Your task to perform on an android device: Search for the best 100% cotton t-shirts Image 0: 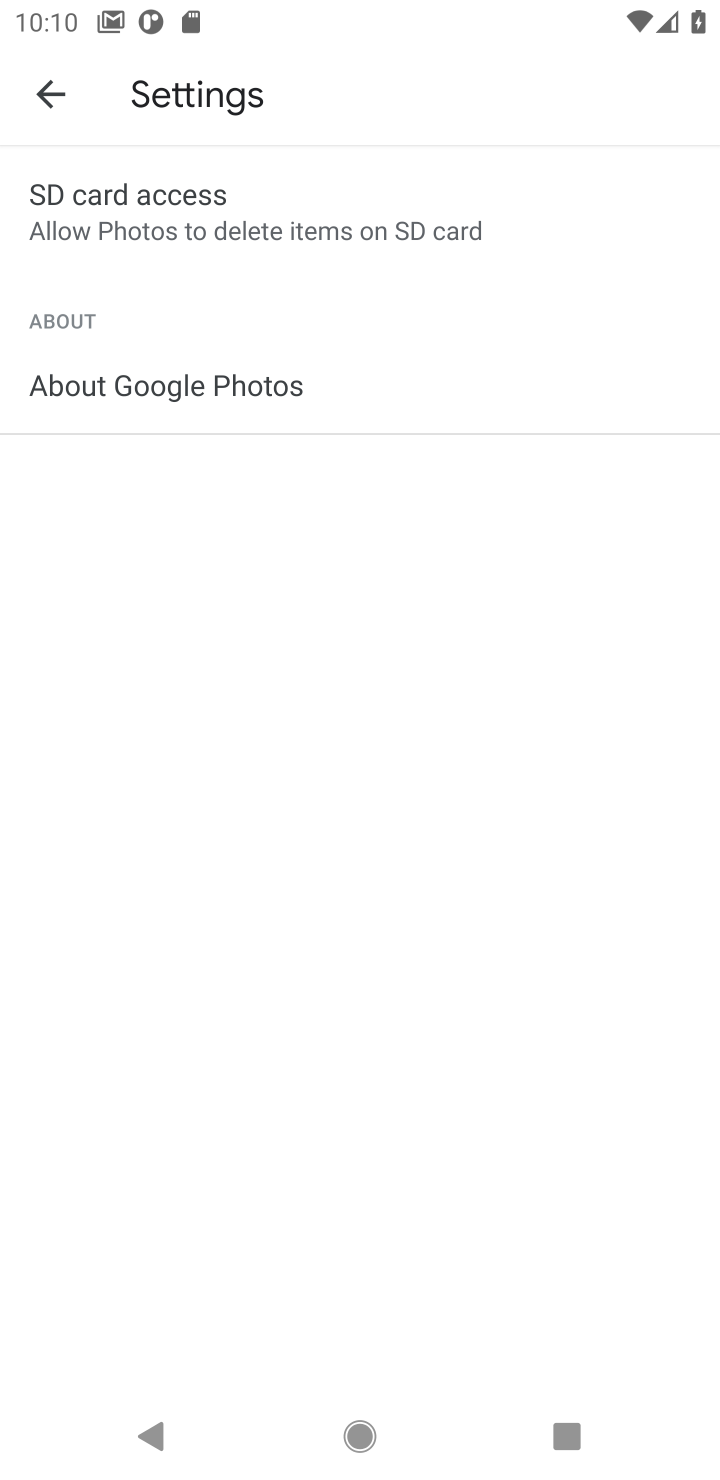
Step 0: click (52, 95)
Your task to perform on an android device: Search for the best 100% cotton t-shirts Image 1: 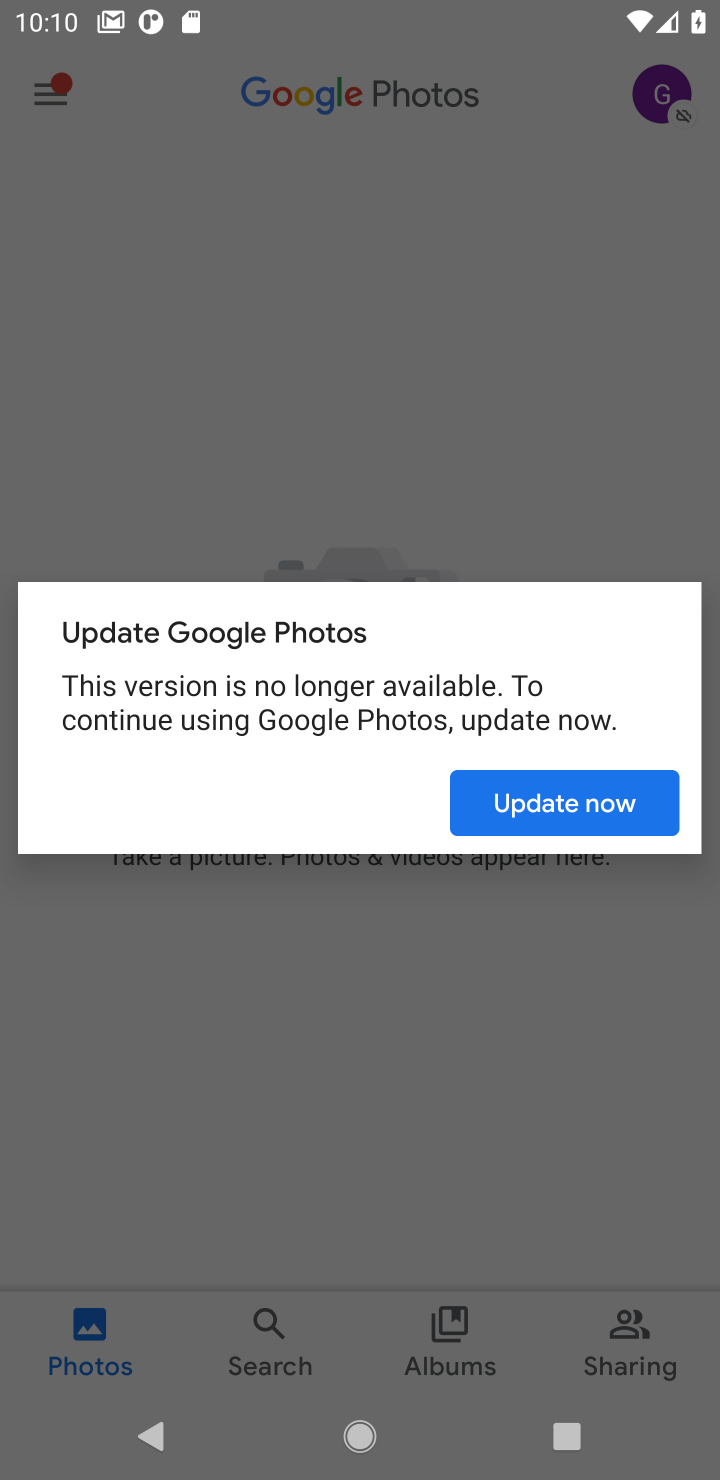
Step 1: press home button
Your task to perform on an android device: Search for the best 100% cotton t-shirts Image 2: 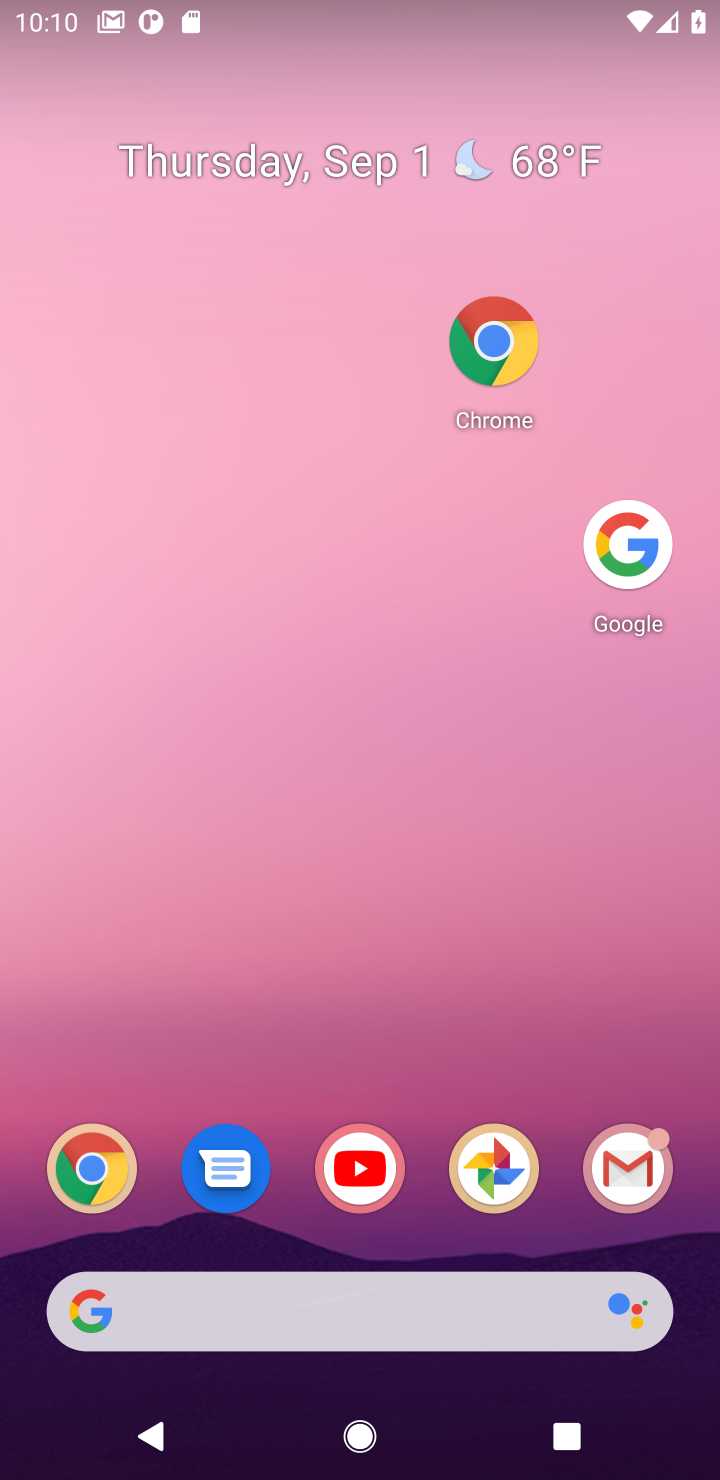
Step 2: click (343, 283)
Your task to perform on an android device: Search for the best 100% cotton t-shirts Image 3: 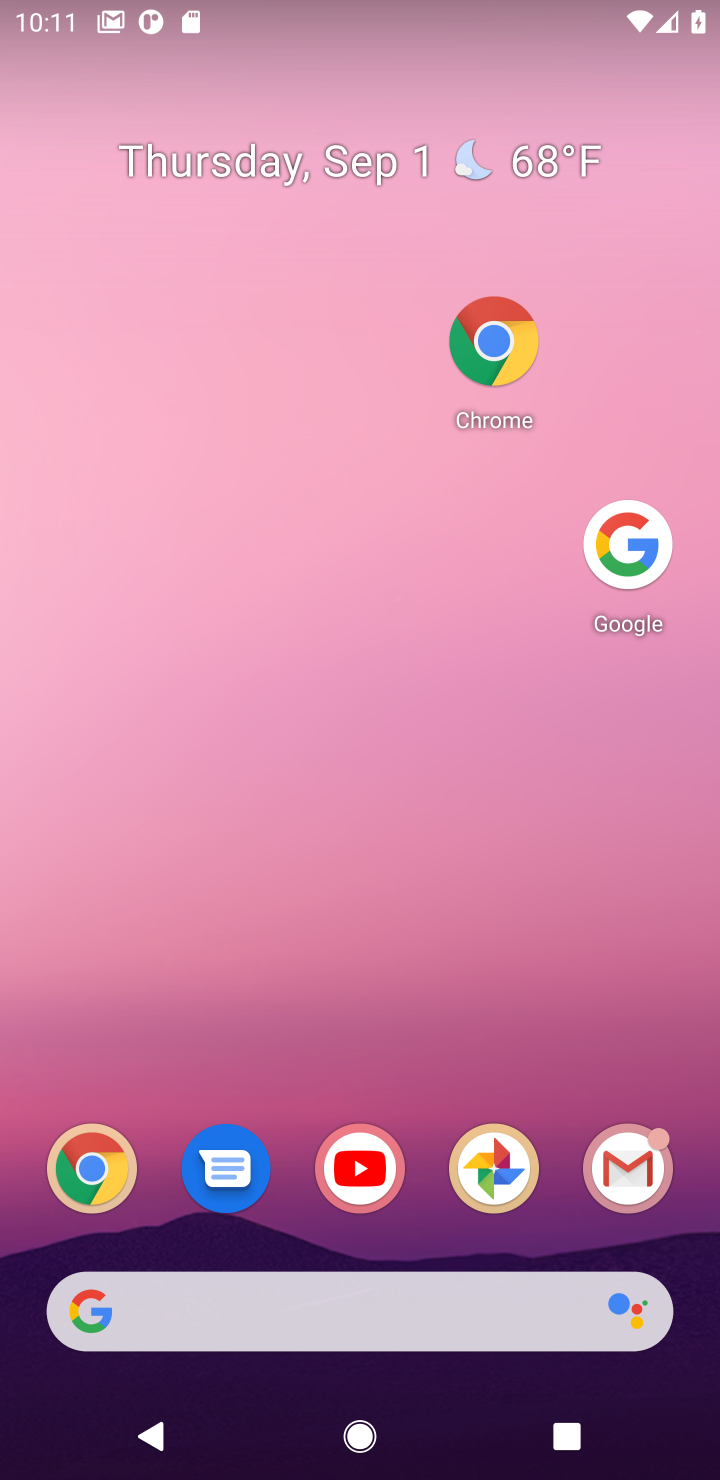
Step 3: click (640, 539)
Your task to perform on an android device: Search for the best 100% cotton t-shirts Image 4: 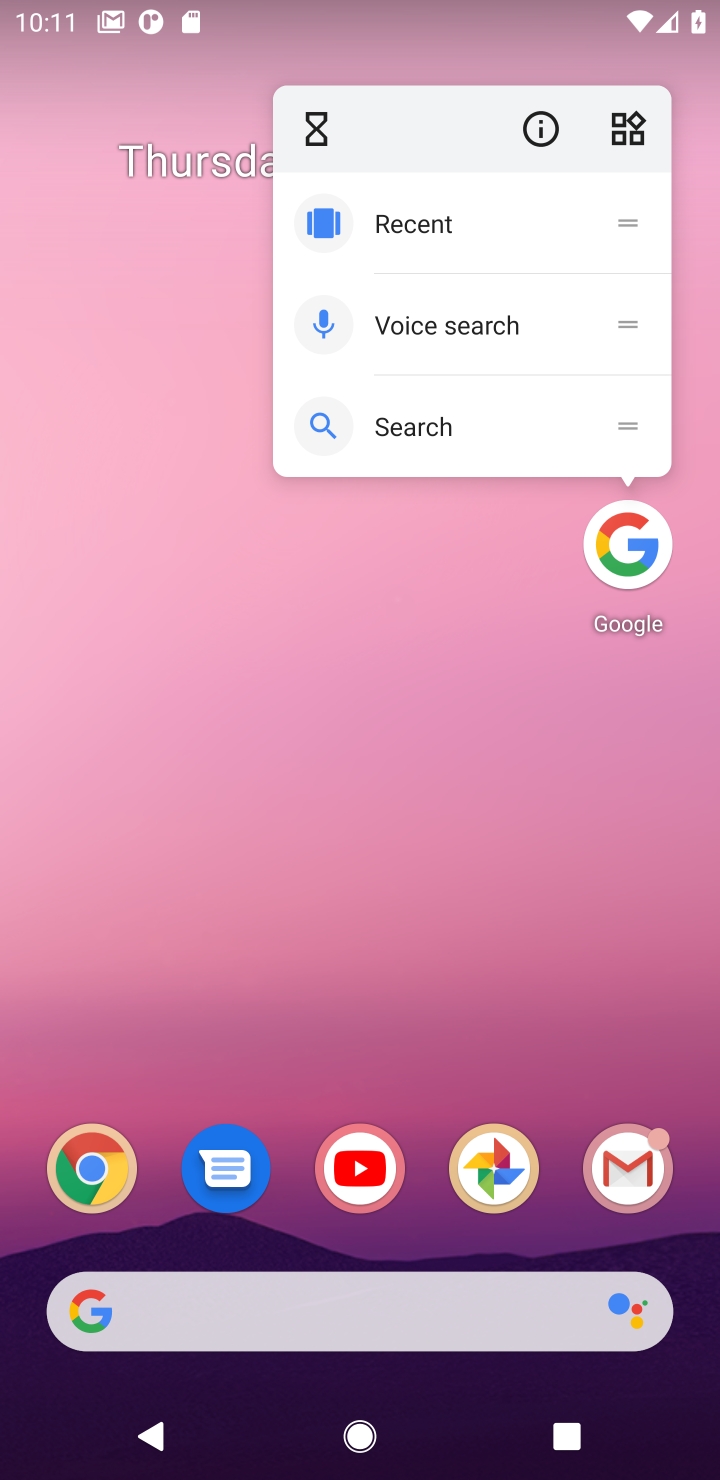
Step 4: click (640, 539)
Your task to perform on an android device: Search for the best 100% cotton t-shirts Image 5: 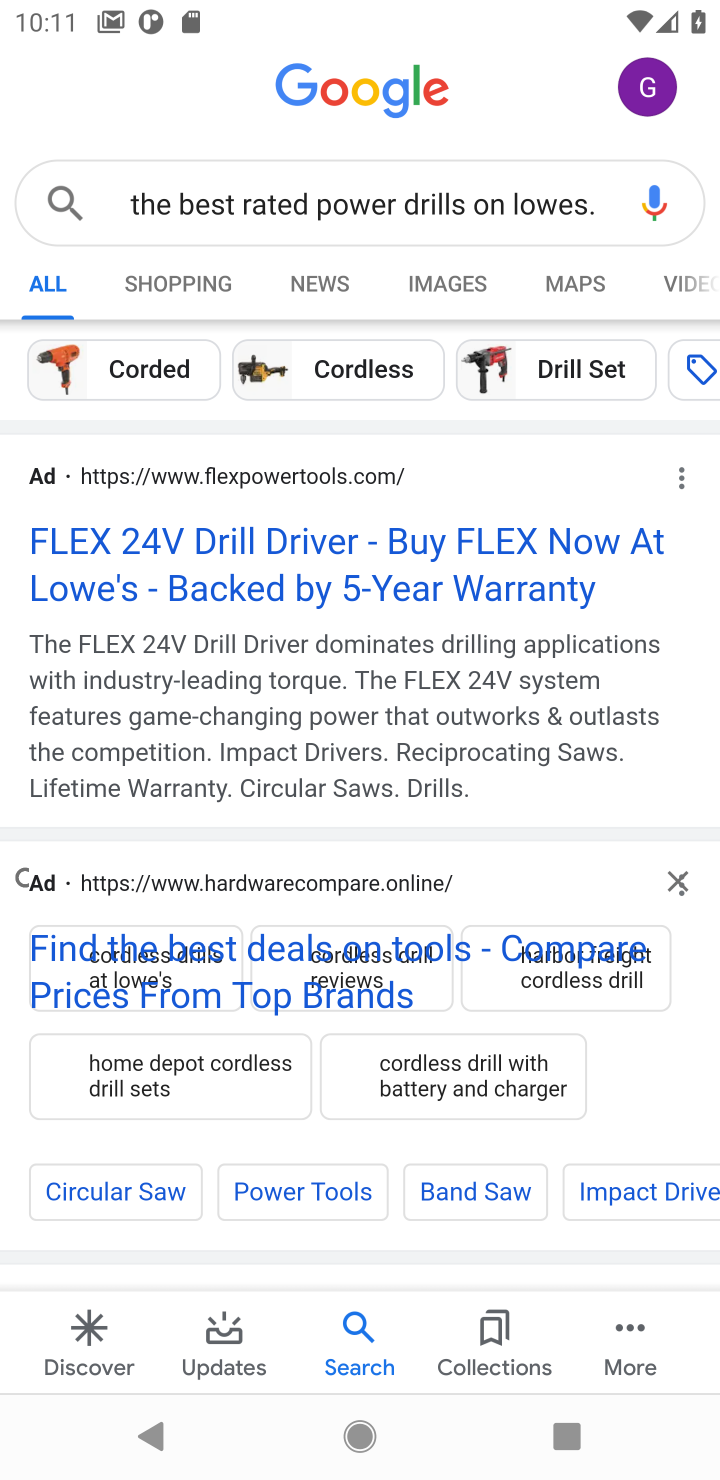
Step 5: click (505, 190)
Your task to perform on an android device: Search for the best 100% cotton t-shirts Image 6: 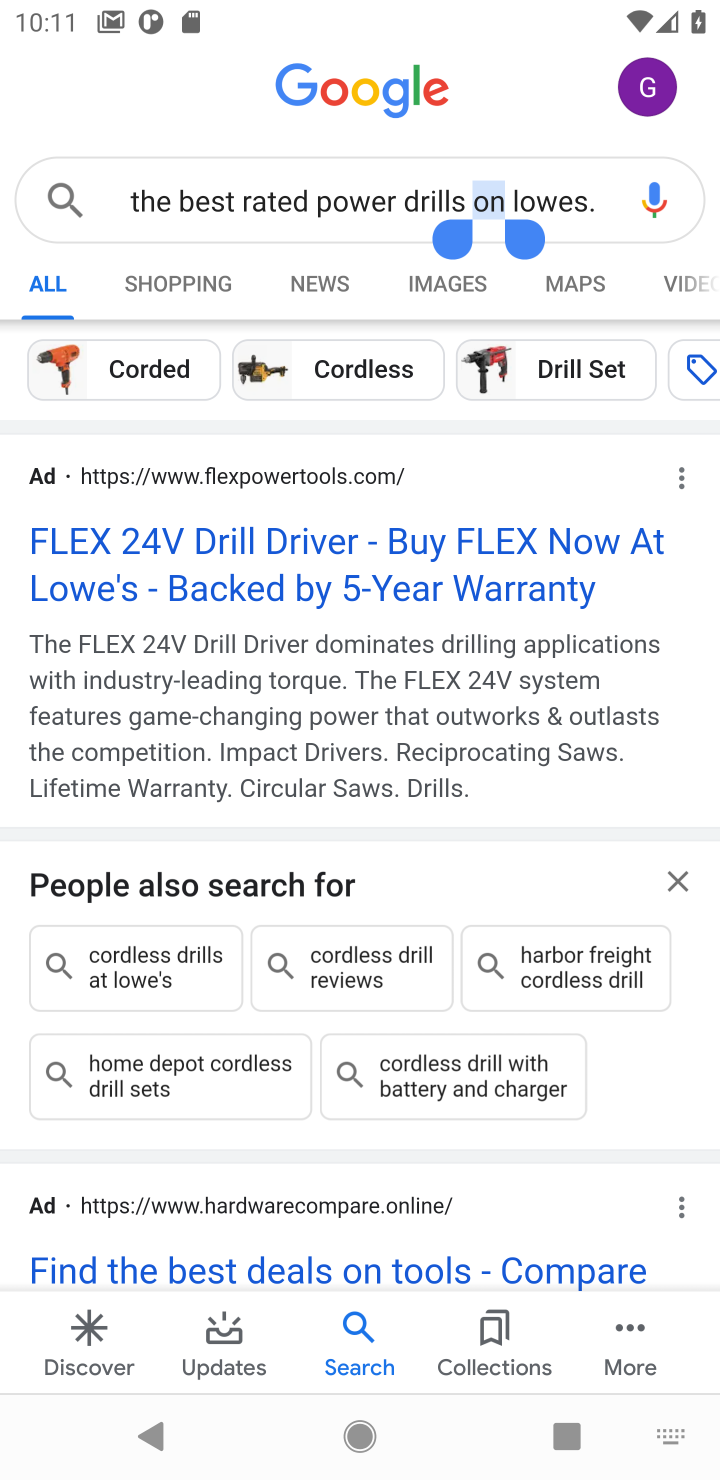
Step 6: click (578, 198)
Your task to perform on an android device: Search for the best 100% cotton t-shirts Image 7: 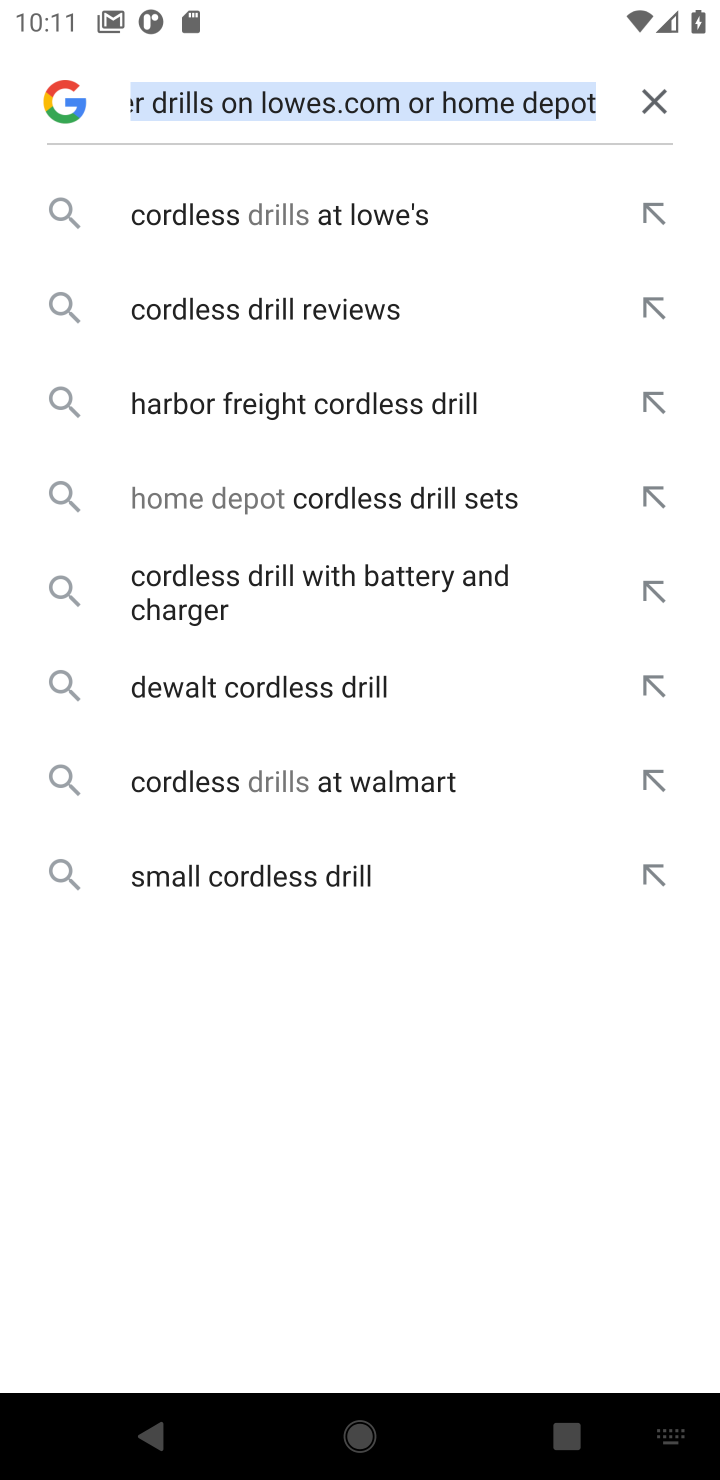
Step 7: click (651, 112)
Your task to perform on an android device: Search for the best 100% cotton t-shirts Image 8: 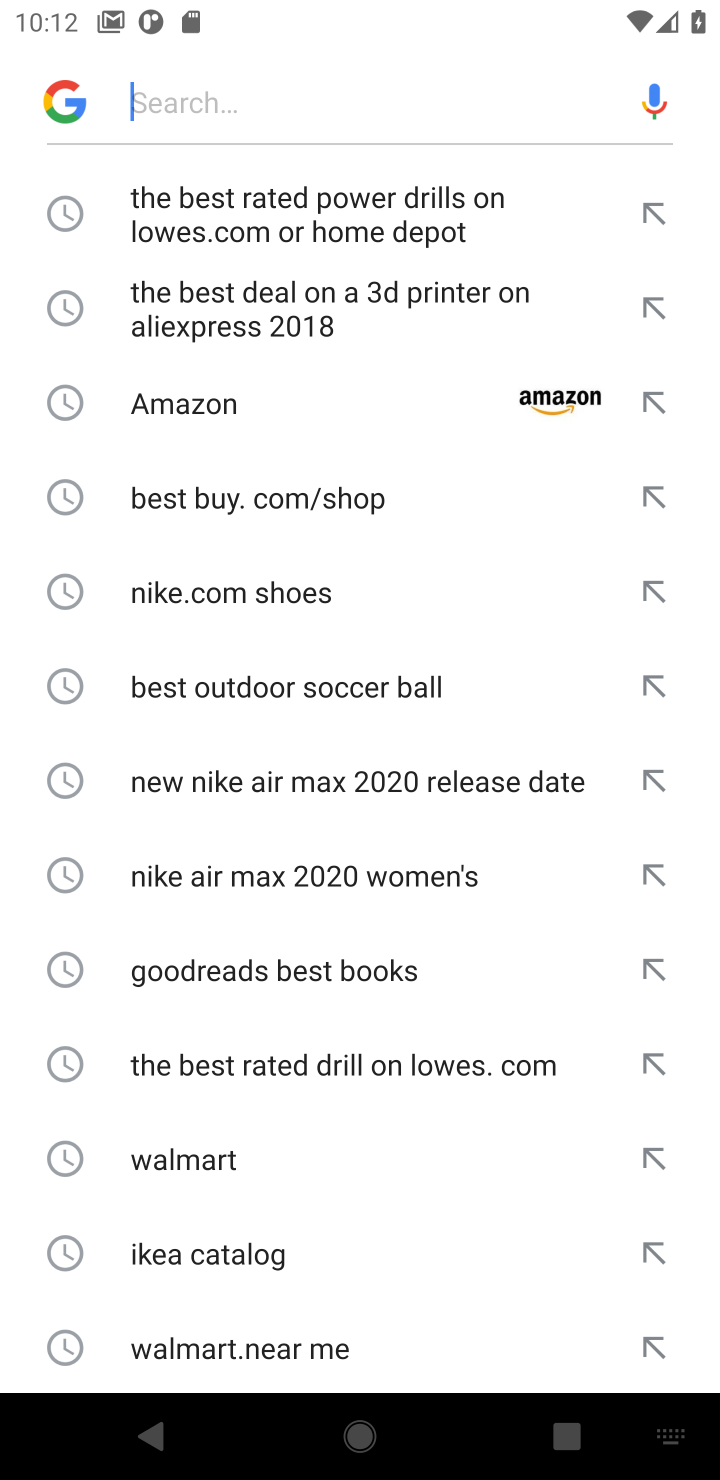
Step 8: click (359, 77)
Your task to perform on an android device: Search for the best 100% cotton t-shirts Image 9: 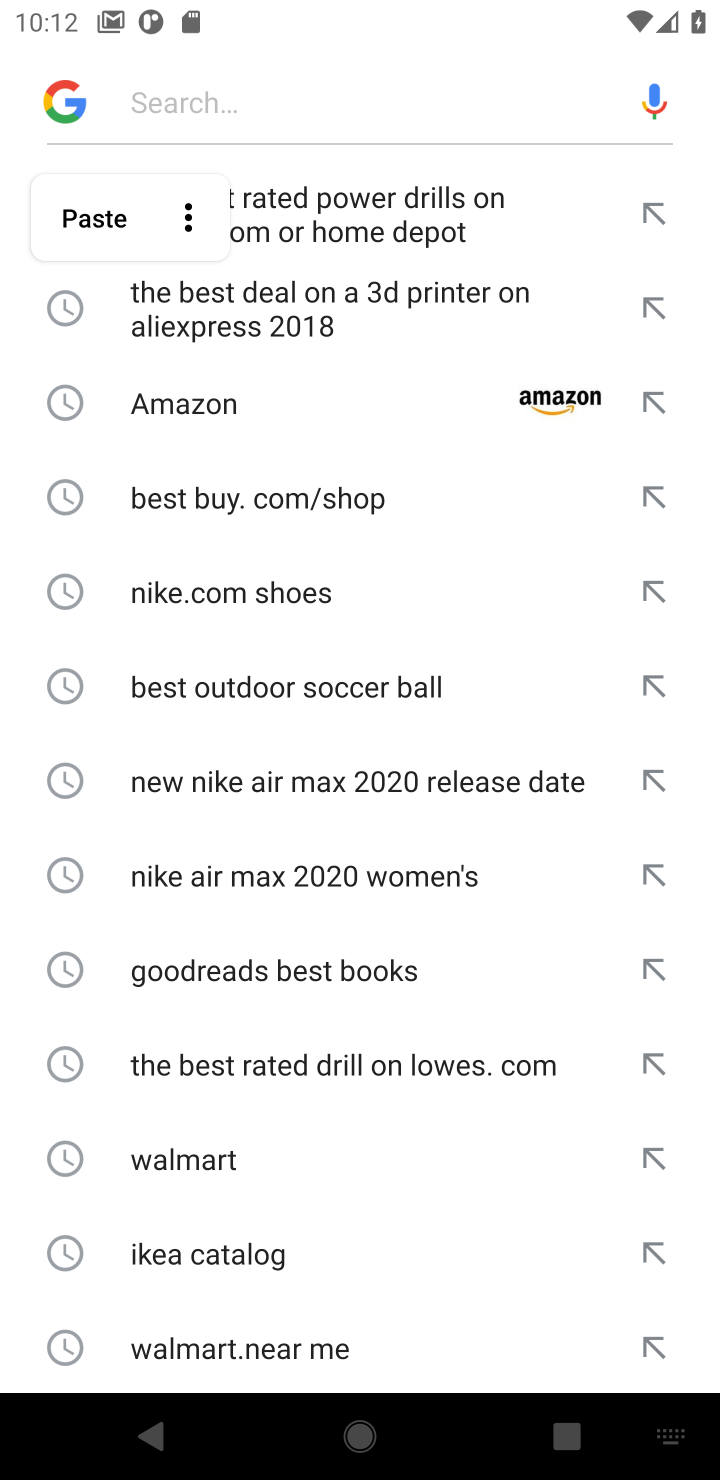
Step 9: type " the best 100% cotton t-shirts "
Your task to perform on an android device: Search for the best 100% cotton t-shirts Image 10: 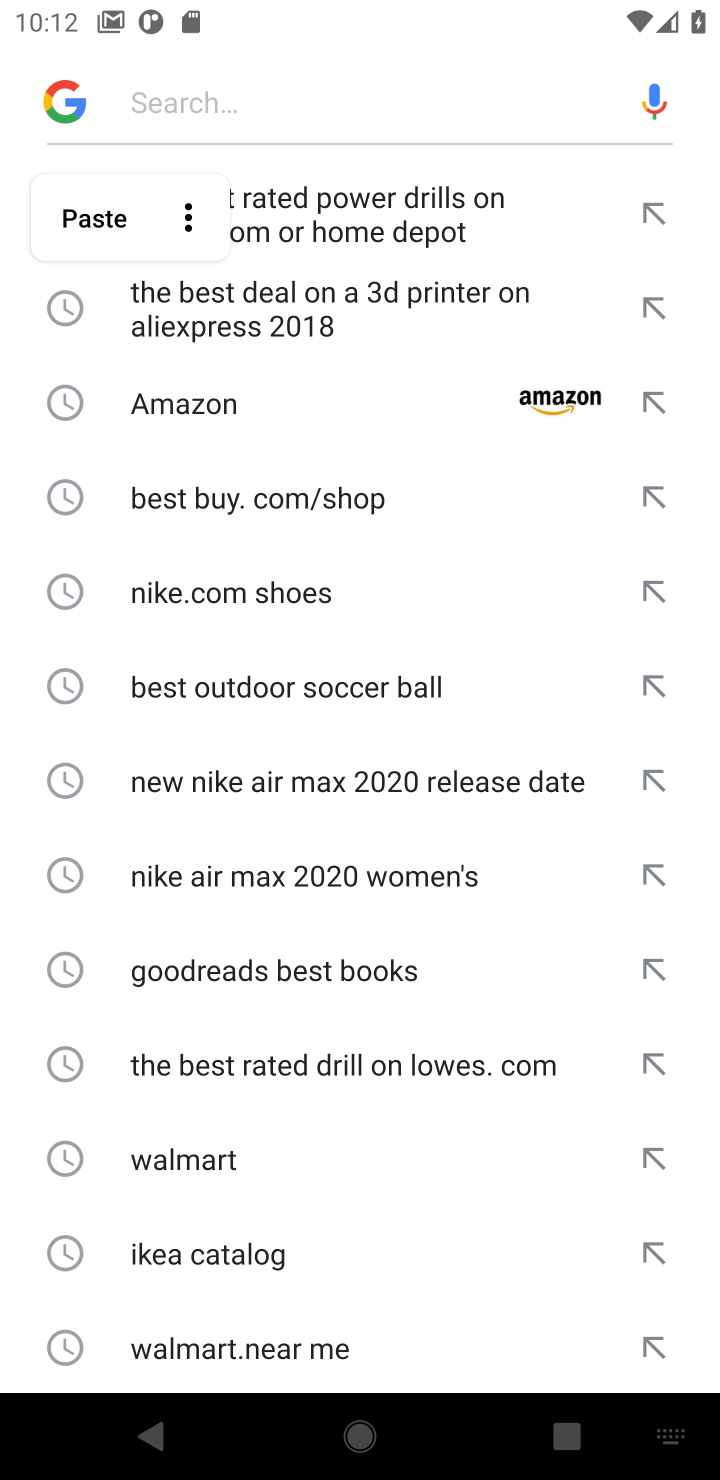
Step 10: click (107, 201)
Your task to perform on an android device: Search for the best 100% cotton t-shirts Image 11: 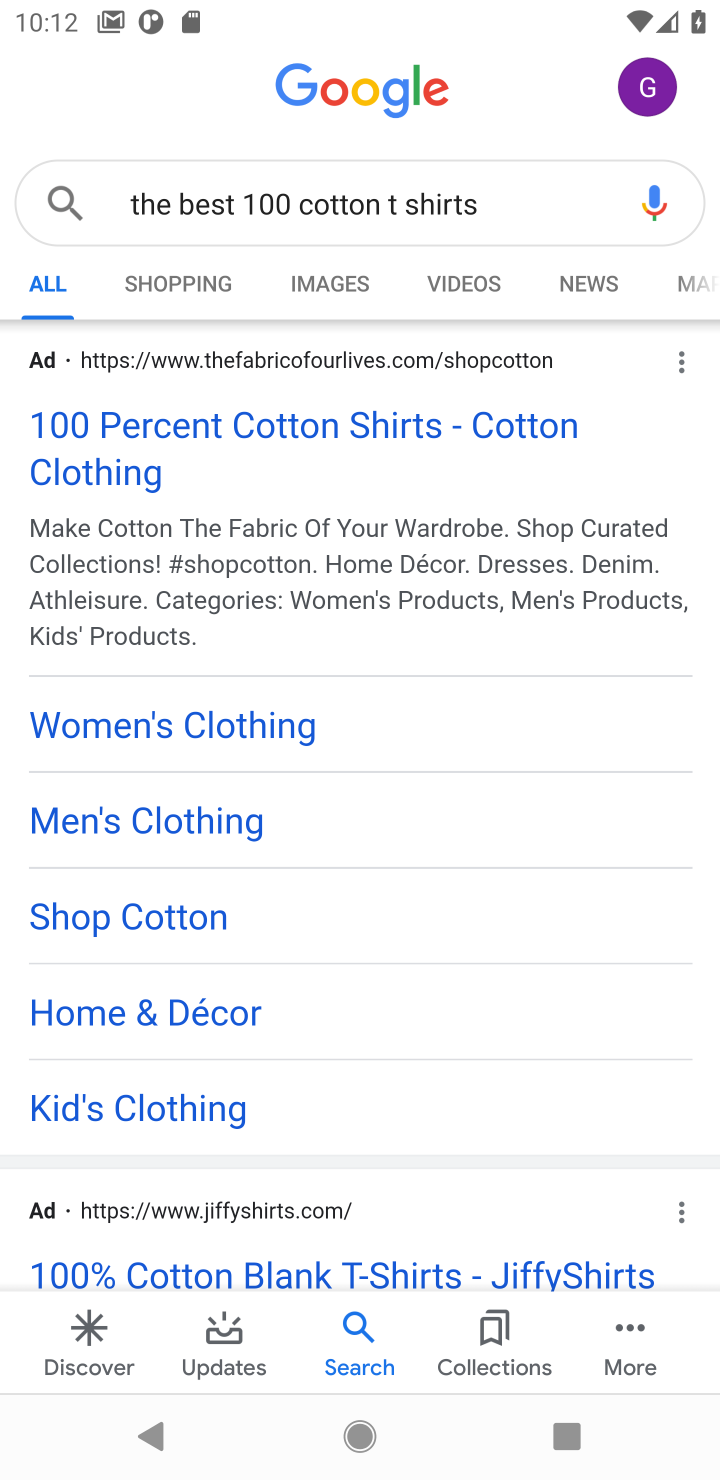
Step 11: click (264, 427)
Your task to perform on an android device: Search for the best 100% cotton t-shirts Image 12: 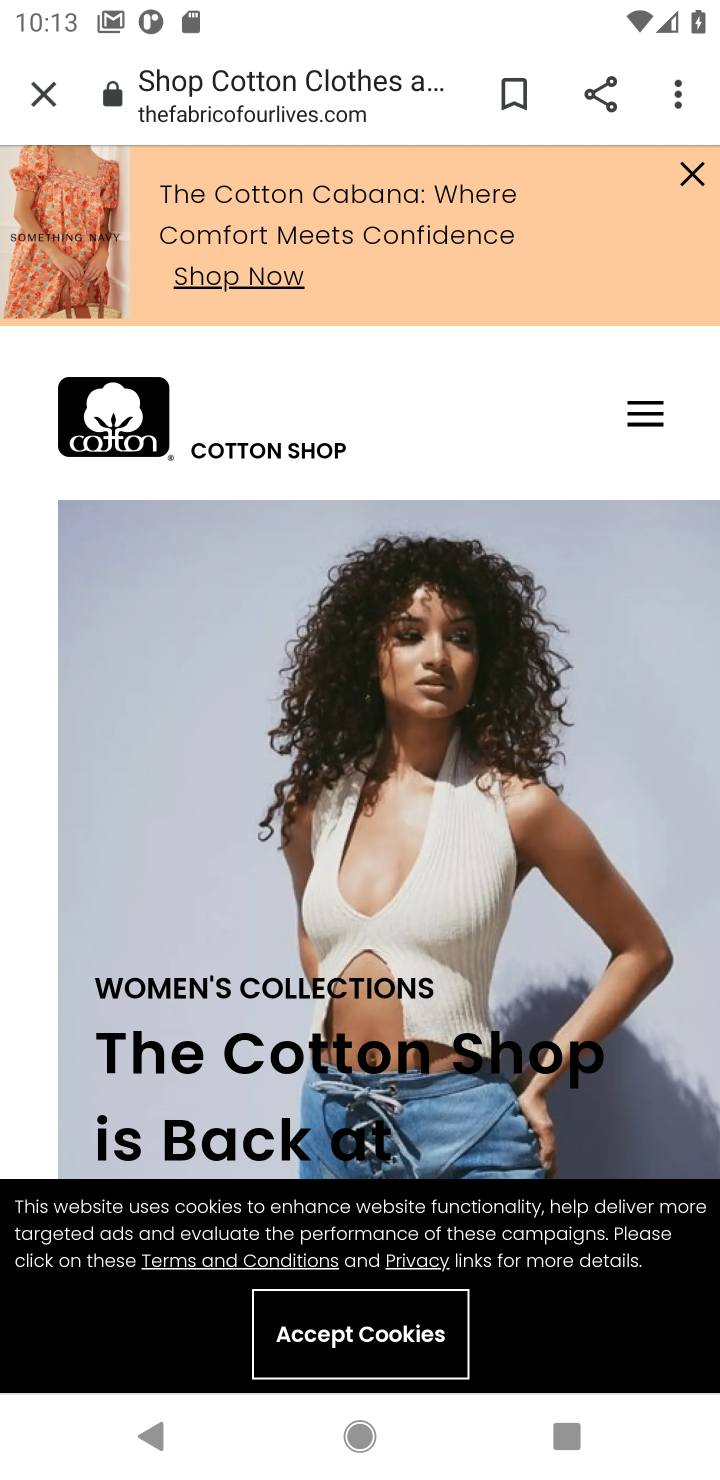
Step 12: task complete